Your task to perform on an android device: change timer sound Image 0: 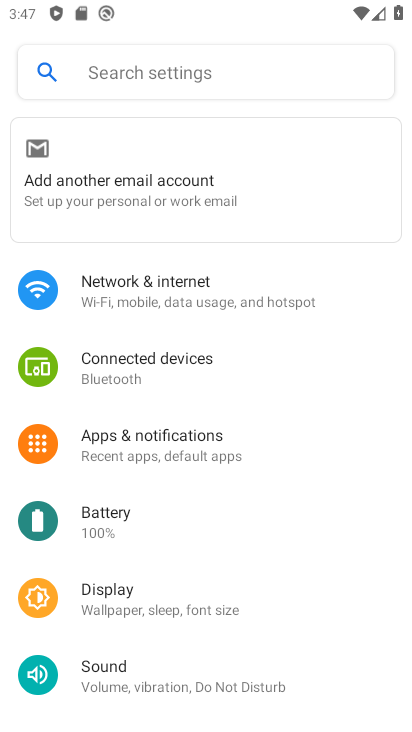
Step 0: press back button
Your task to perform on an android device: change timer sound Image 1: 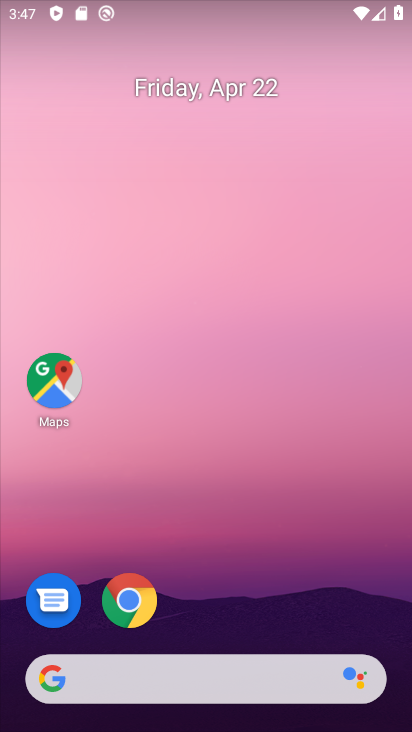
Step 1: drag from (259, 509) to (329, 106)
Your task to perform on an android device: change timer sound Image 2: 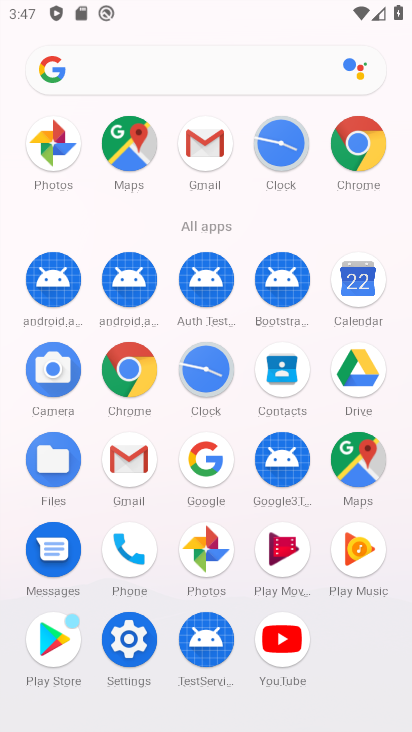
Step 2: click (197, 373)
Your task to perform on an android device: change timer sound Image 3: 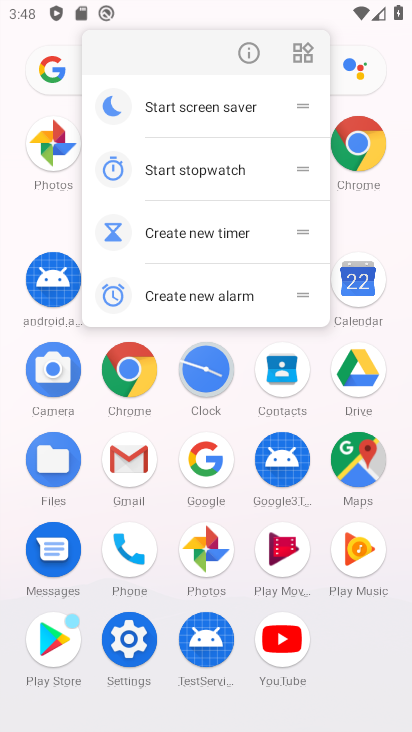
Step 3: click (210, 371)
Your task to perform on an android device: change timer sound Image 4: 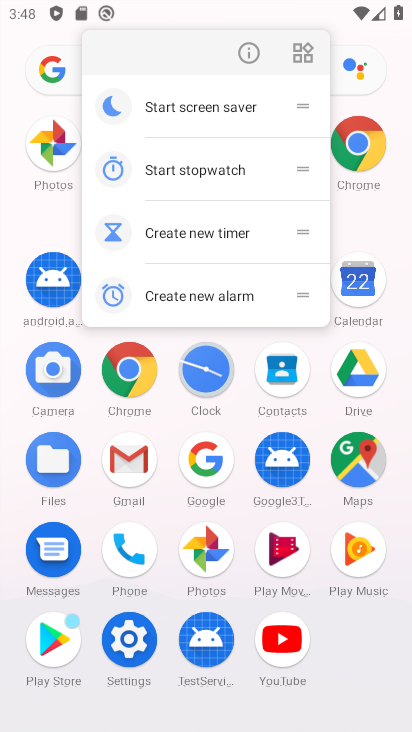
Step 4: click (215, 366)
Your task to perform on an android device: change timer sound Image 5: 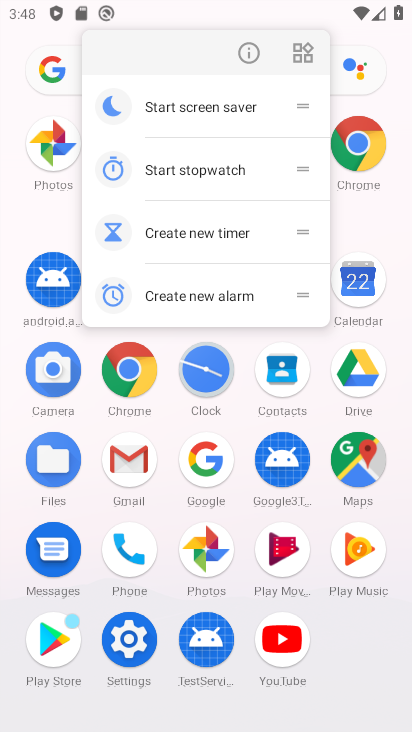
Step 5: click (202, 363)
Your task to perform on an android device: change timer sound Image 6: 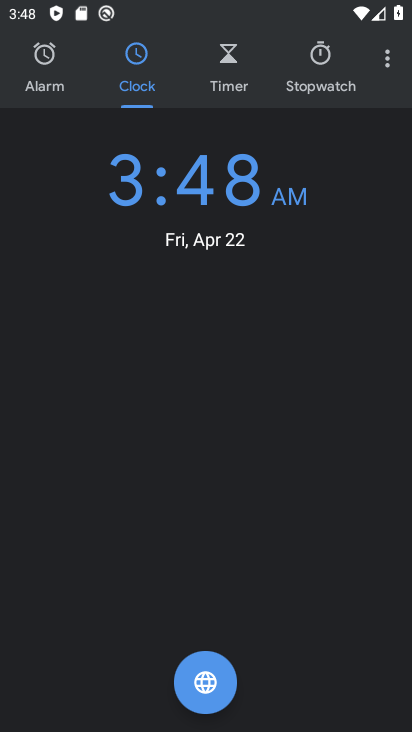
Step 6: click (375, 59)
Your task to perform on an android device: change timer sound Image 7: 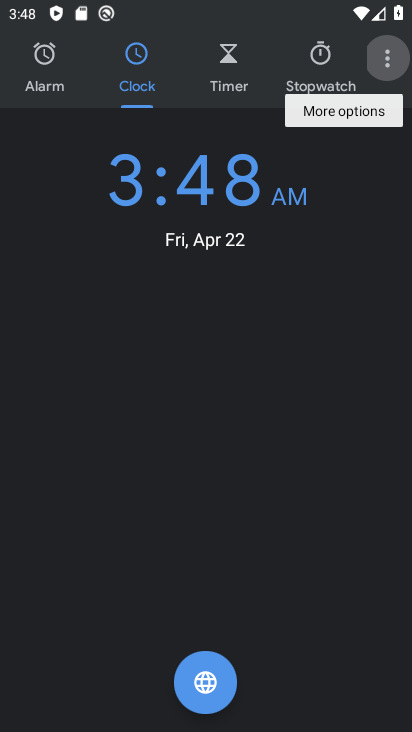
Step 7: click (388, 58)
Your task to perform on an android device: change timer sound Image 8: 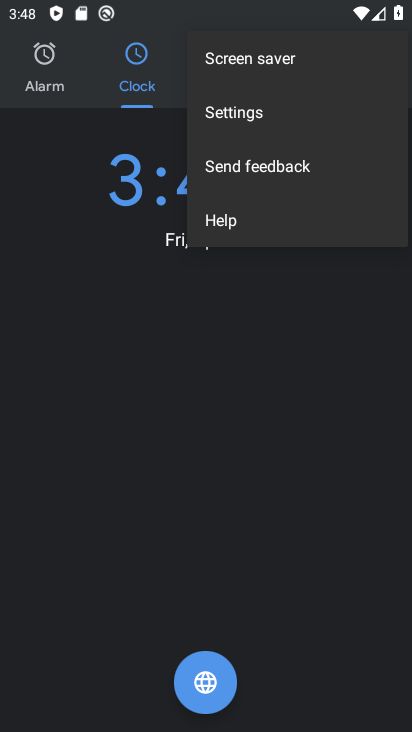
Step 8: click (342, 108)
Your task to perform on an android device: change timer sound Image 9: 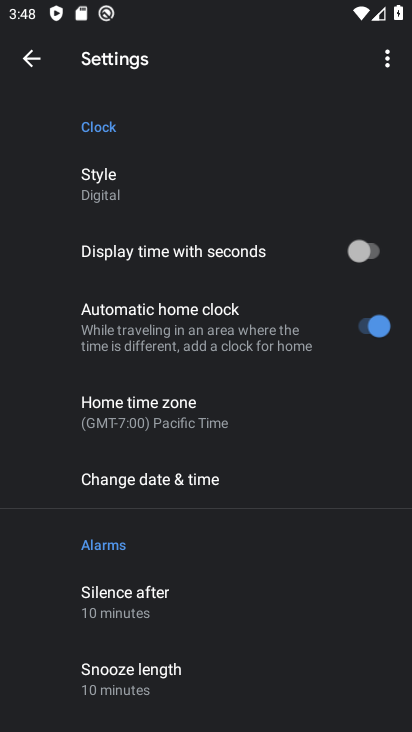
Step 9: drag from (201, 641) to (289, 311)
Your task to perform on an android device: change timer sound Image 10: 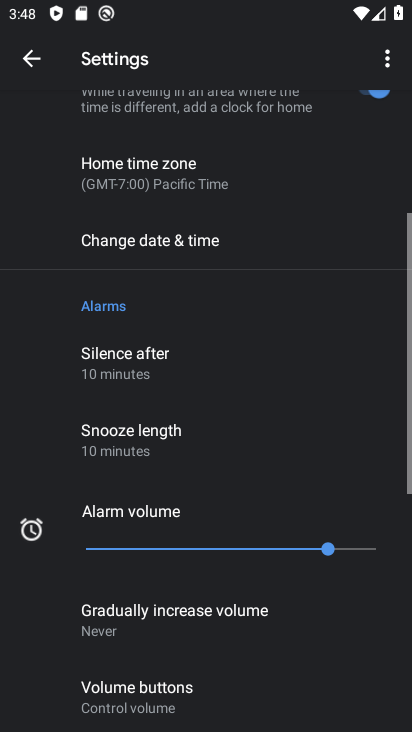
Step 10: drag from (213, 591) to (290, 322)
Your task to perform on an android device: change timer sound Image 11: 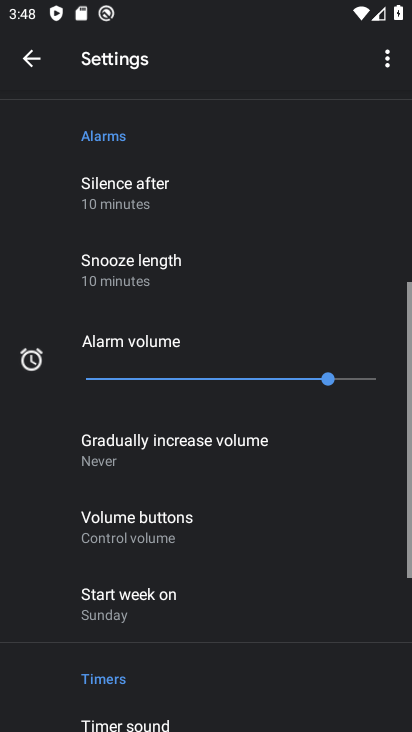
Step 11: drag from (239, 464) to (294, 355)
Your task to perform on an android device: change timer sound Image 12: 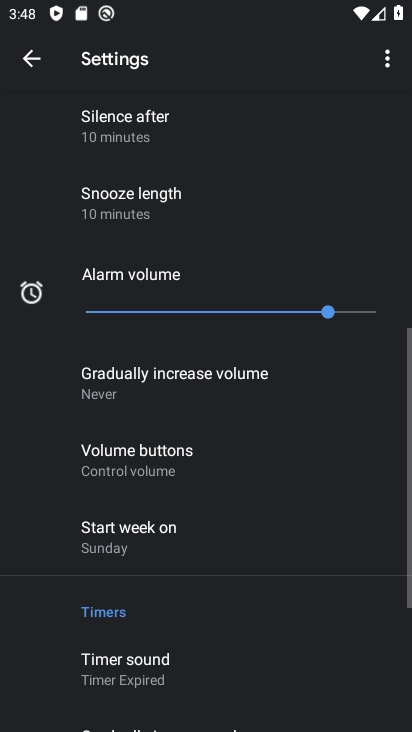
Step 12: click (210, 663)
Your task to perform on an android device: change timer sound Image 13: 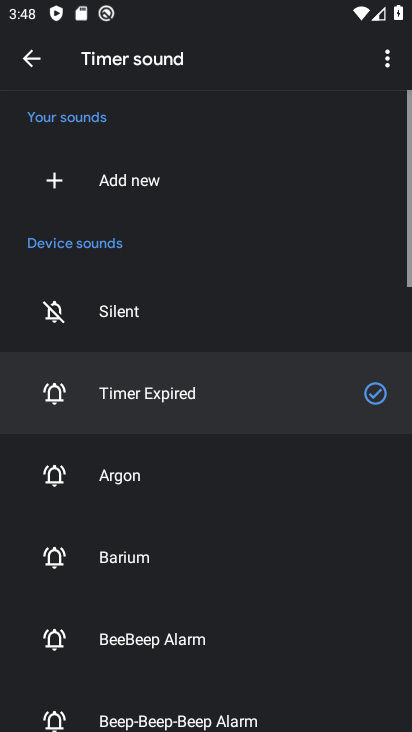
Step 13: click (199, 637)
Your task to perform on an android device: change timer sound Image 14: 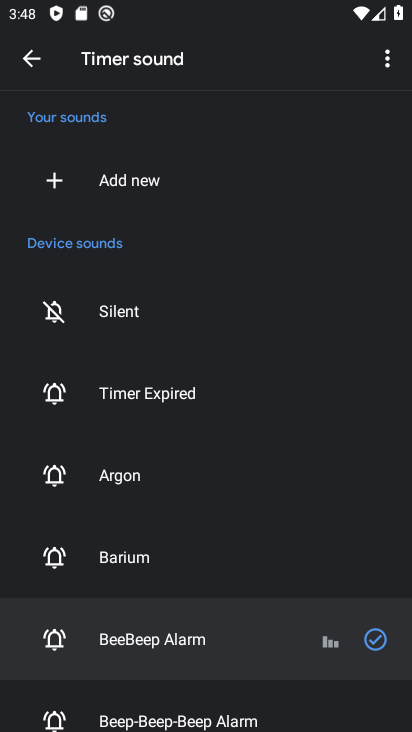
Step 14: task complete